Your task to perform on an android device: see sites visited before in the chrome app Image 0: 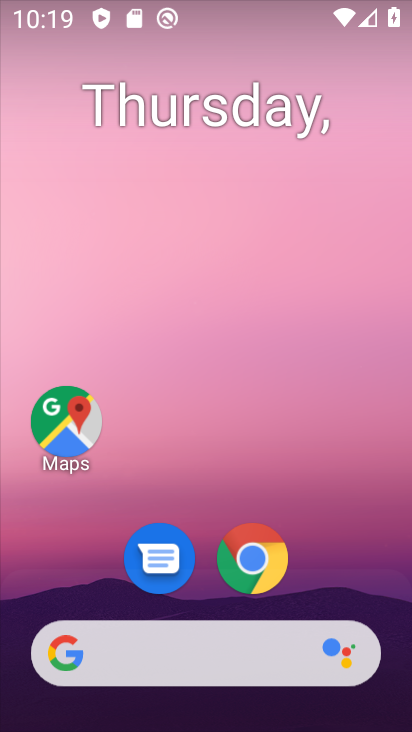
Step 0: click (248, 561)
Your task to perform on an android device: see sites visited before in the chrome app Image 1: 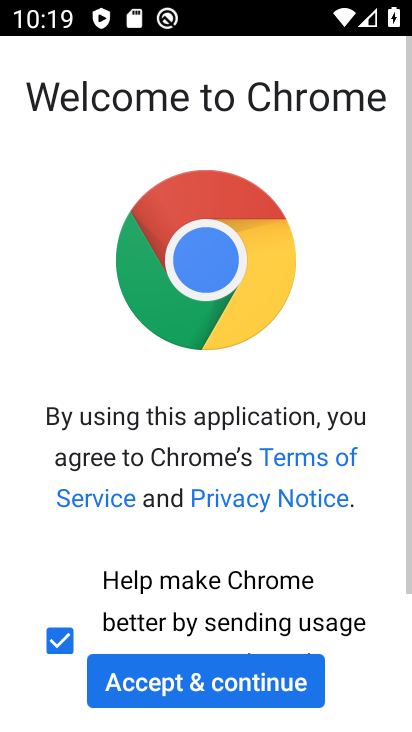
Step 1: click (174, 695)
Your task to perform on an android device: see sites visited before in the chrome app Image 2: 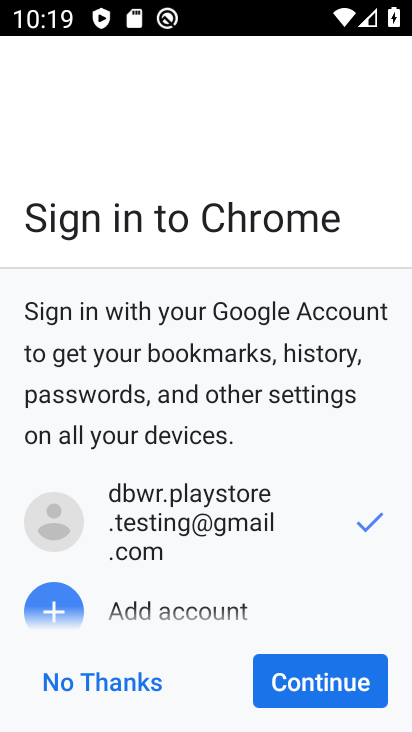
Step 2: click (303, 688)
Your task to perform on an android device: see sites visited before in the chrome app Image 3: 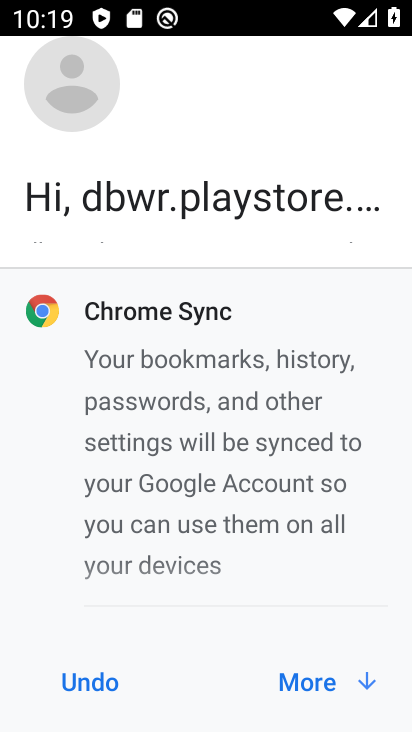
Step 3: click (303, 688)
Your task to perform on an android device: see sites visited before in the chrome app Image 4: 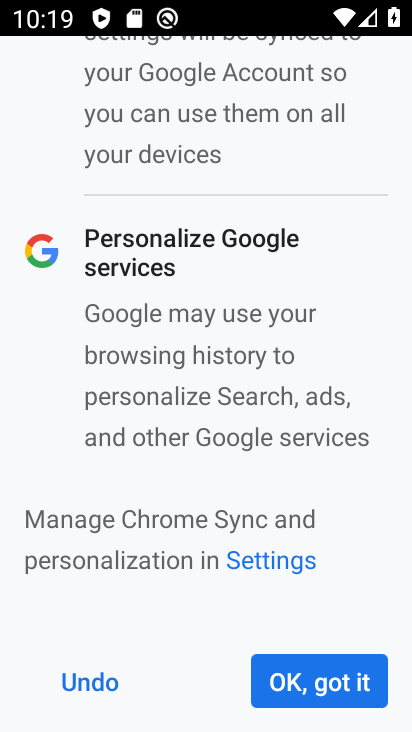
Step 4: click (303, 688)
Your task to perform on an android device: see sites visited before in the chrome app Image 5: 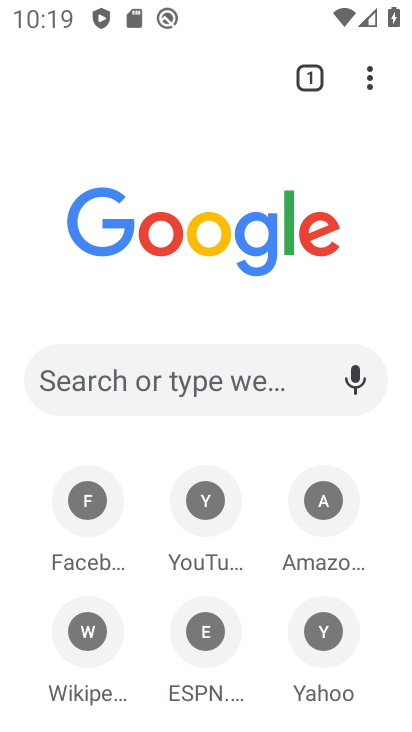
Step 5: click (362, 77)
Your task to perform on an android device: see sites visited before in the chrome app Image 6: 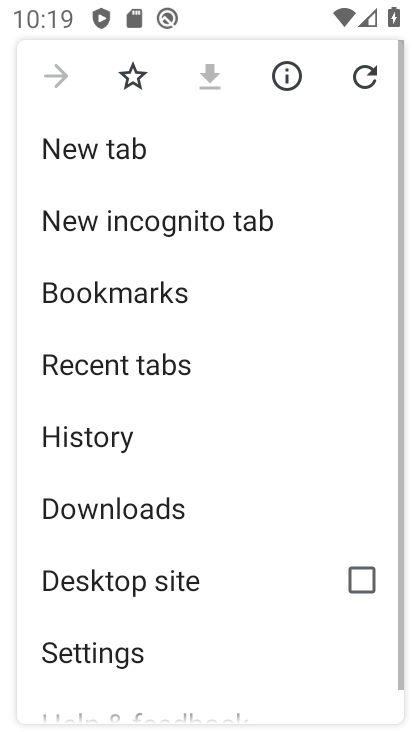
Step 6: click (109, 423)
Your task to perform on an android device: see sites visited before in the chrome app Image 7: 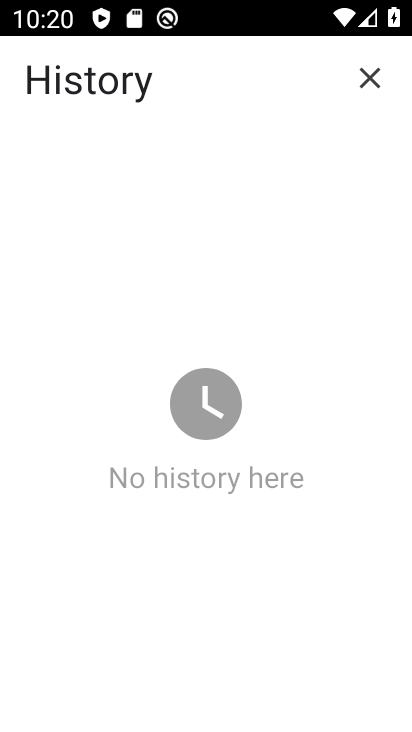
Step 7: task complete